Your task to perform on an android device: Go to eBay Image 0: 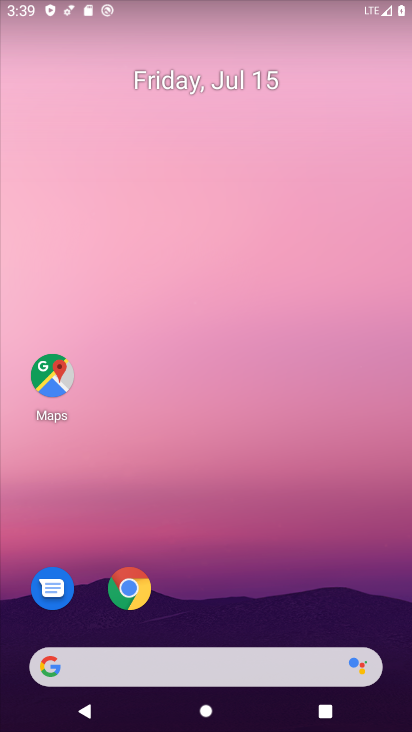
Step 0: drag from (211, 641) to (288, 146)
Your task to perform on an android device: Go to eBay Image 1: 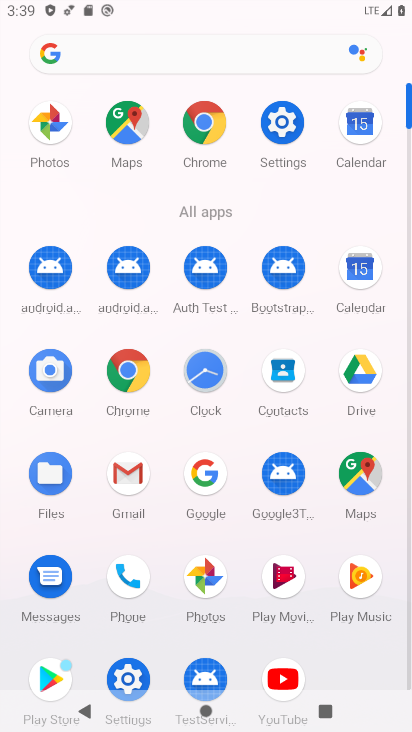
Step 1: click (125, 384)
Your task to perform on an android device: Go to eBay Image 2: 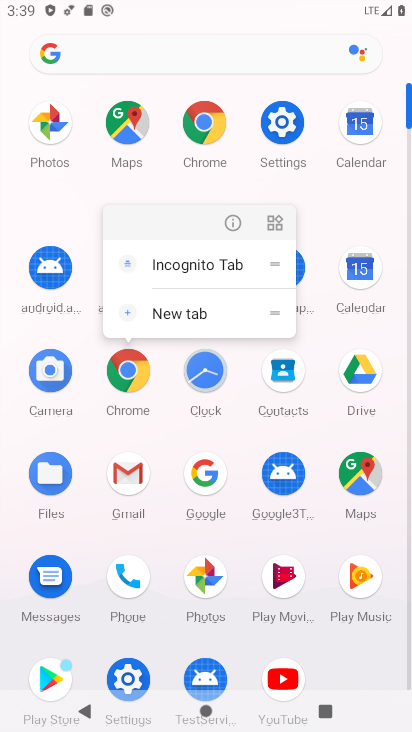
Step 2: click (141, 375)
Your task to perform on an android device: Go to eBay Image 3: 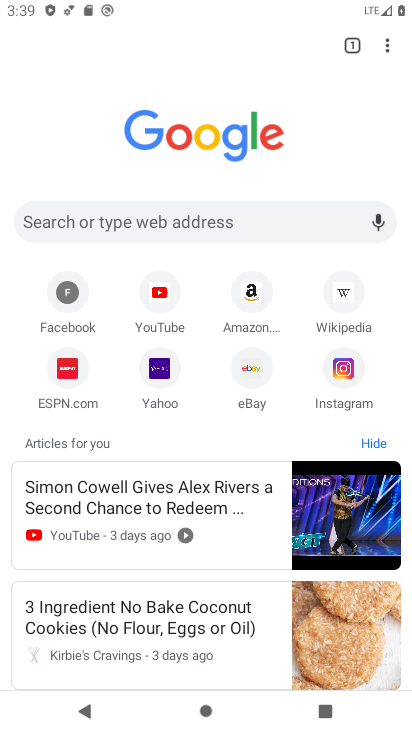
Step 3: click (258, 362)
Your task to perform on an android device: Go to eBay Image 4: 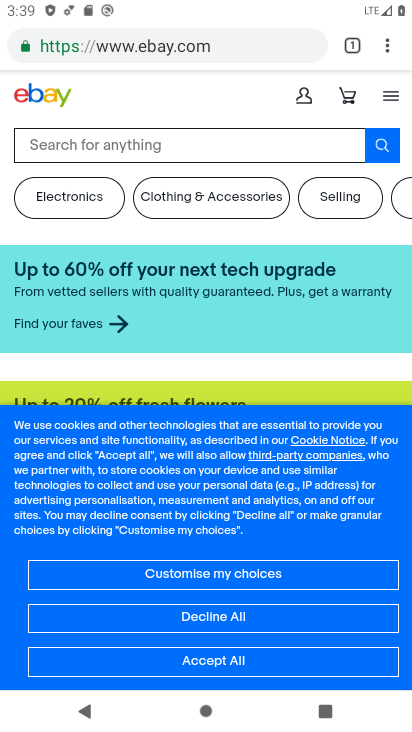
Step 4: task complete